Your task to perform on an android device: Show me recent news Image 0: 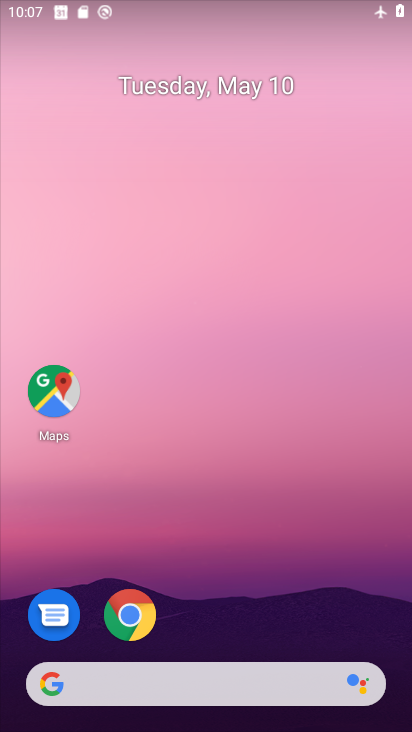
Step 0: drag from (196, 615) to (210, 204)
Your task to perform on an android device: Show me recent news Image 1: 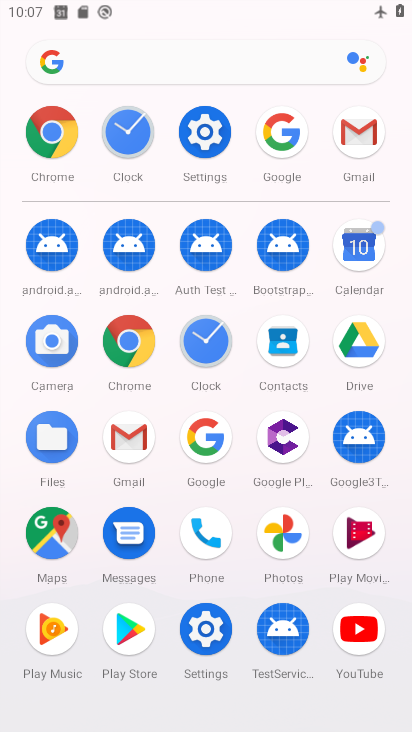
Step 1: click (171, 33)
Your task to perform on an android device: Show me recent news Image 2: 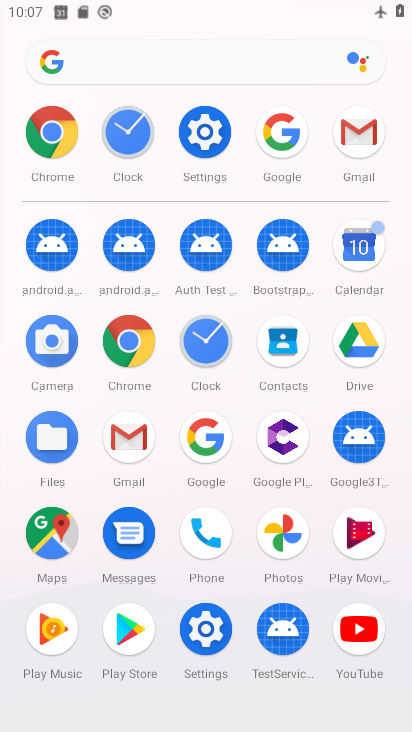
Step 2: click (155, 48)
Your task to perform on an android device: Show me recent news Image 3: 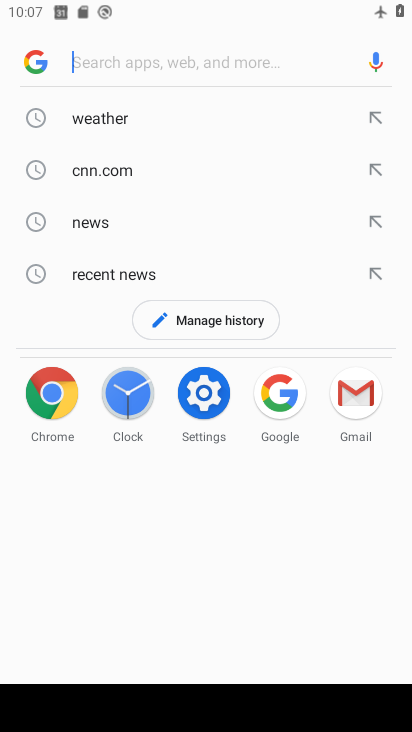
Step 3: click (124, 228)
Your task to perform on an android device: Show me recent news Image 4: 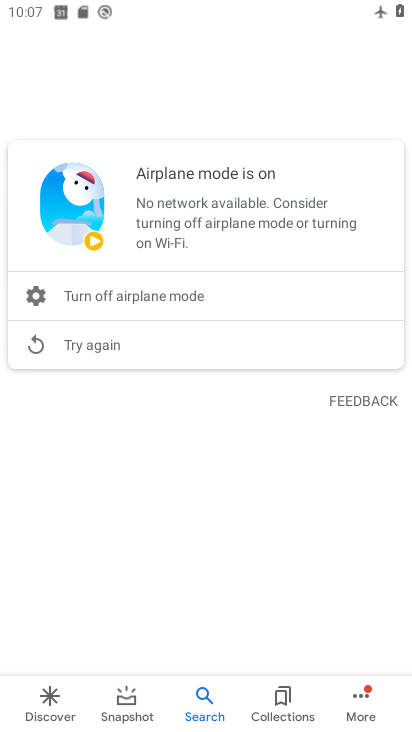
Step 4: task complete